Your task to perform on an android device: What is the capital of Germany? Image 0: 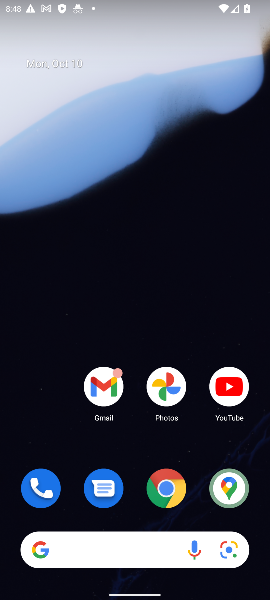
Step 0: drag from (139, 461) to (121, 18)
Your task to perform on an android device: What is the capital of Germany? Image 1: 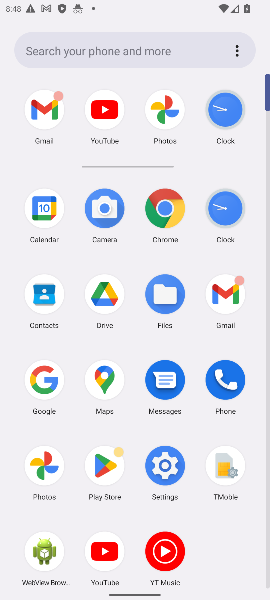
Step 1: click (161, 206)
Your task to perform on an android device: What is the capital of Germany? Image 2: 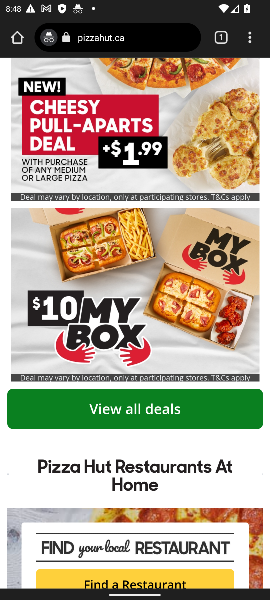
Step 2: click (102, 42)
Your task to perform on an android device: What is the capital of Germany? Image 3: 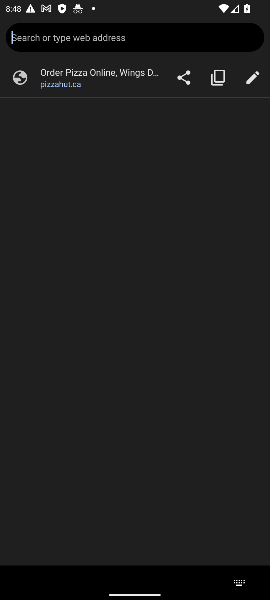
Step 3: type "capital of Germany"
Your task to perform on an android device: What is the capital of Germany? Image 4: 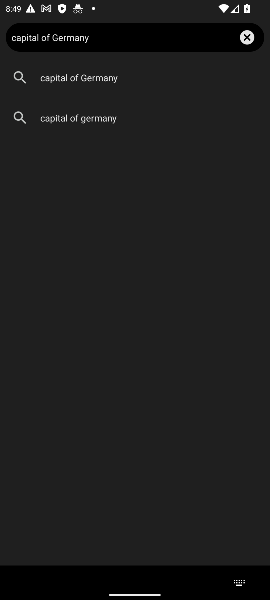
Step 4: press enter
Your task to perform on an android device: What is the capital of Germany? Image 5: 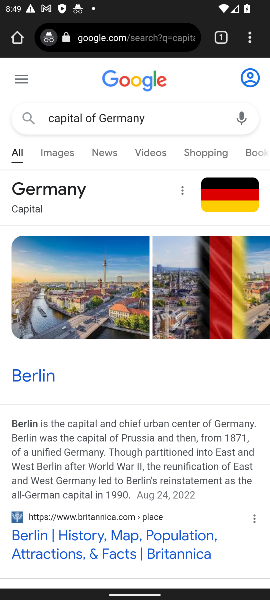
Step 5: task complete